Your task to perform on an android device: Turn on the flashlight Image 0: 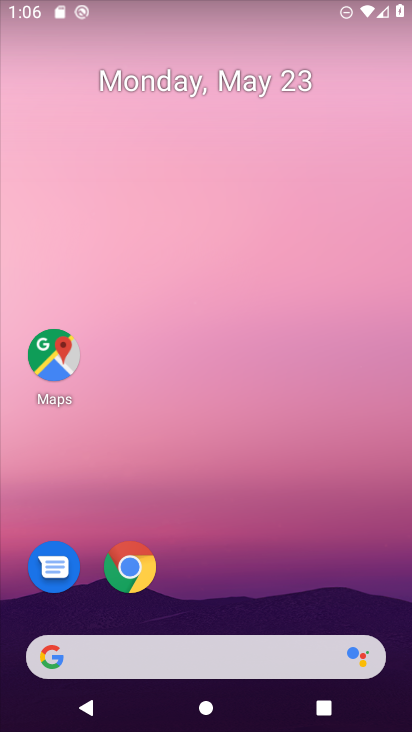
Step 0: drag from (319, 3) to (333, 693)
Your task to perform on an android device: Turn on the flashlight Image 1: 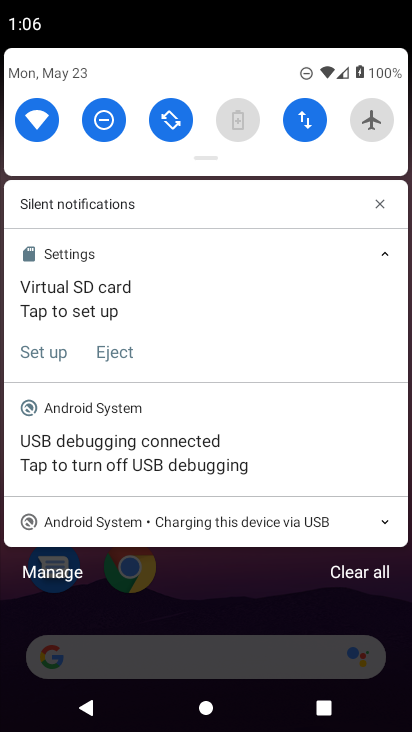
Step 1: task complete